Your task to perform on an android device: Open battery settings Image 0: 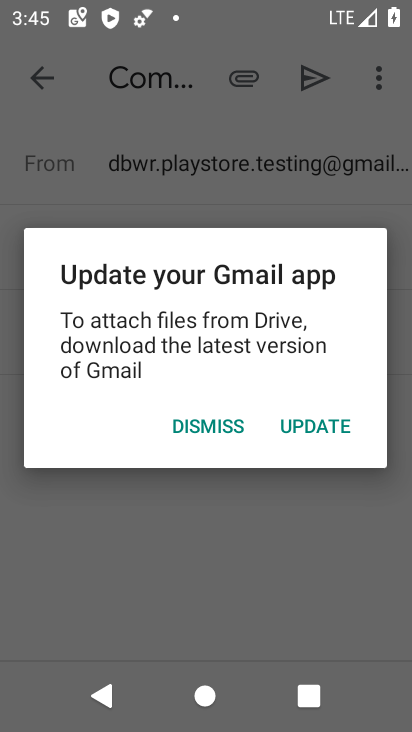
Step 0: click (199, 510)
Your task to perform on an android device: Open battery settings Image 1: 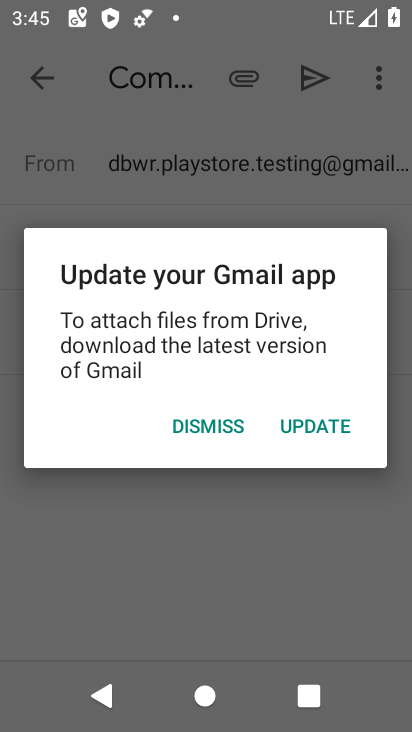
Step 1: press home button
Your task to perform on an android device: Open battery settings Image 2: 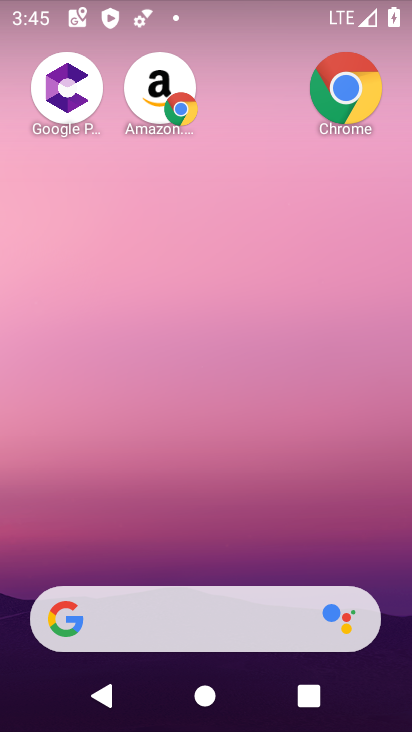
Step 2: drag from (163, 517) to (270, 78)
Your task to perform on an android device: Open battery settings Image 3: 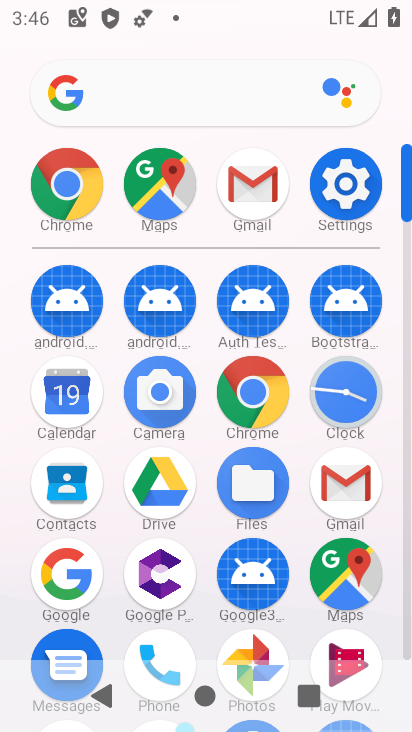
Step 3: click (345, 182)
Your task to perform on an android device: Open battery settings Image 4: 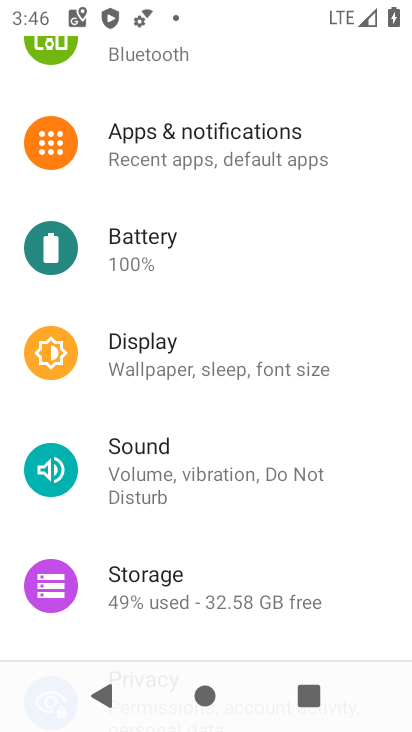
Step 4: click (149, 238)
Your task to perform on an android device: Open battery settings Image 5: 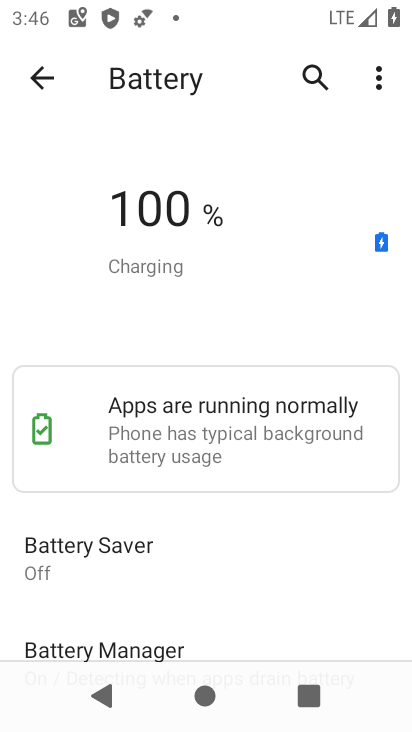
Step 5: task complete